Your task to perform on an android device: Open Youtube and go to the subscriptions tab Image 0: 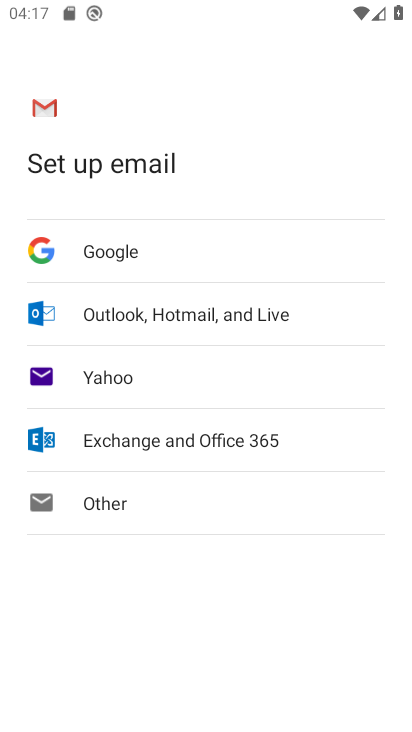
Step 0: press home button
Your task to perform on an android device: Open Youtube and go to the subscriptions tab Image 1: 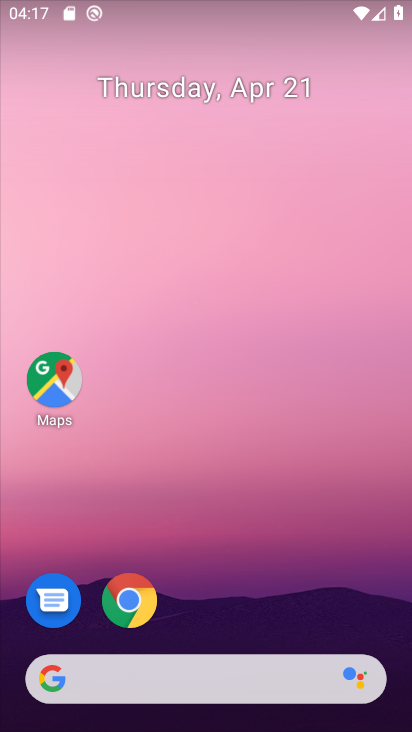
Step 1: drag from (366, 638) to (402, 3)
Your task to perform on an android device: Open Youtube and go to the subscriptions tab Image 2: 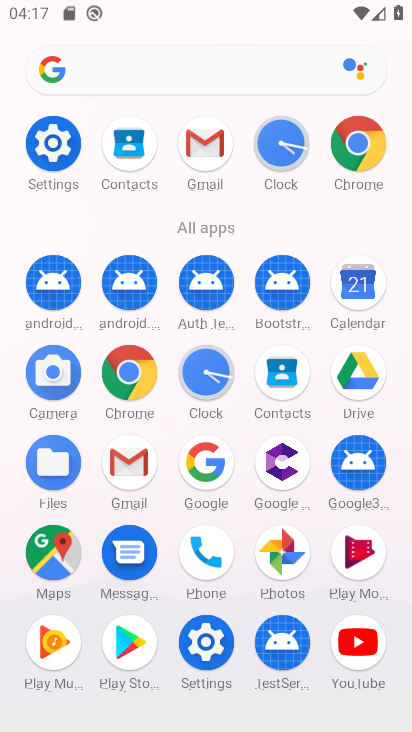
Step 2: click (365, 647)
Your task to perform on an android device: Open Youtube and go to the subscriptions tab Image 3: 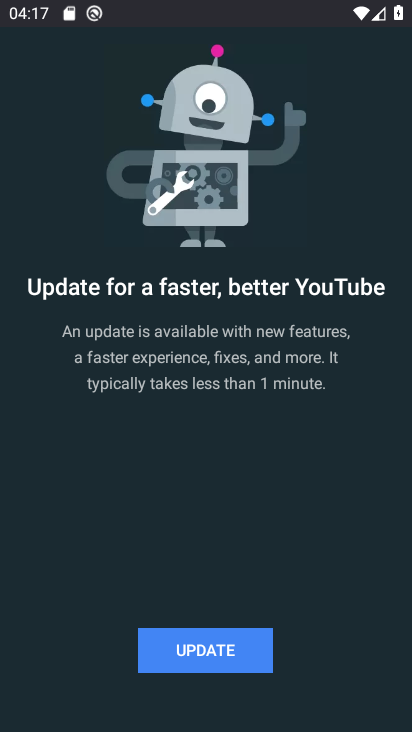
Step 3: click (177, 653)
Your task to perform on an android device: Open Youtube and go to the subscriptions tab Image 4: 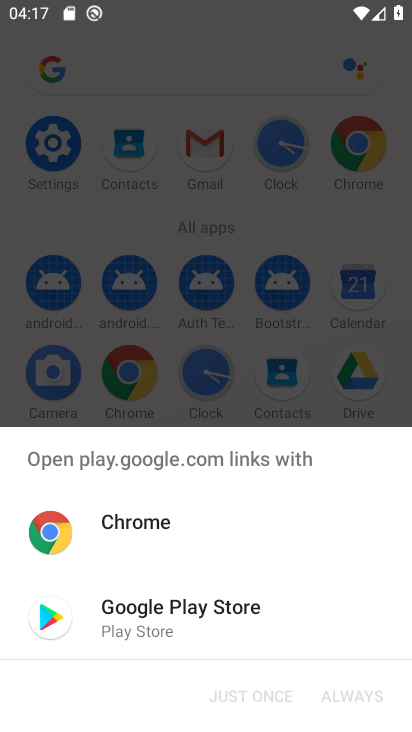
Step 4: click (153, 614)
Your task to perform on an android device: Open Youtube and go to the subscriptions tab Image 5: 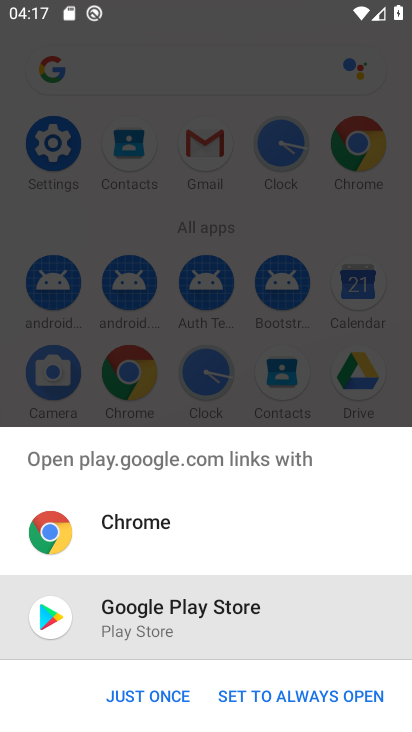
Step 5: click (150, 686)
Your task to perform on an android device: Open Youtube and go to the subscriptions tab Image 6: 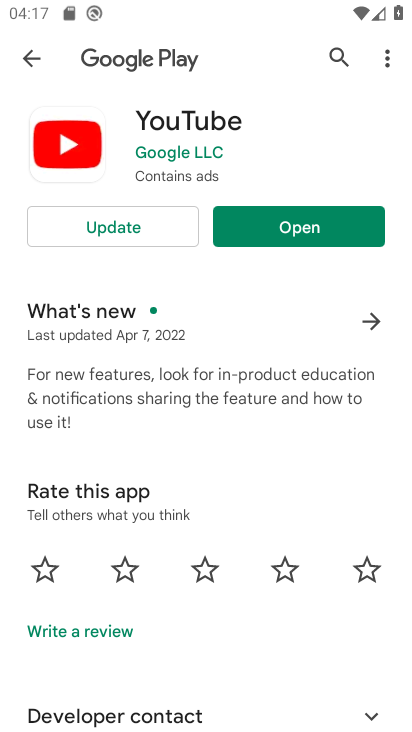
Step 6: click (110, 239)
Your task to perform on an android device: Open Youtube and go to the subscriptions tab Image 7: 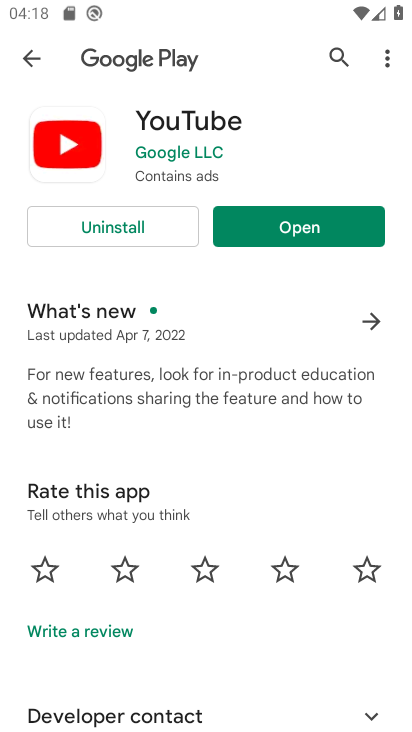
Step 7: click (252, 237)
Your task to perform on an android device: Open Youtube and go to the subscriptions tab Image 8: 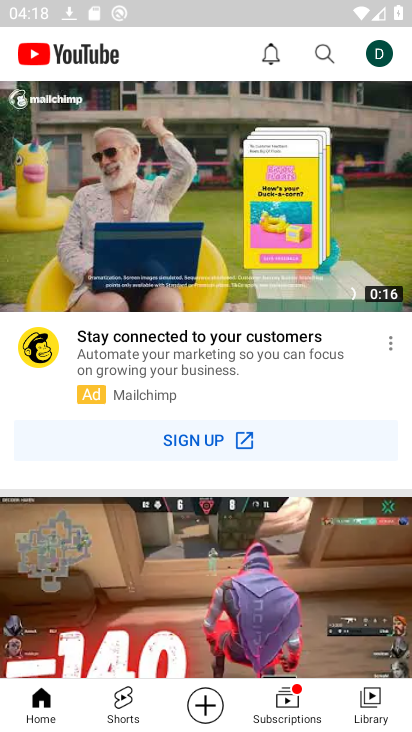
Step 8: click (289, 700)
Your task to perform on an android device: Open Youtube and go to the subscriptions tab Image 9: 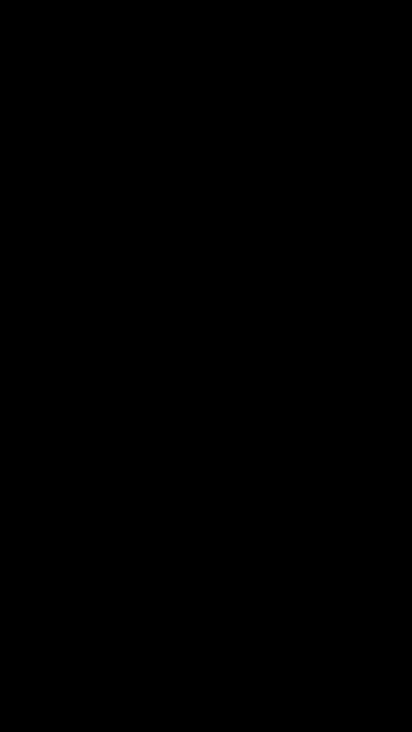
Step 9: task complete